Your task to perform on an android device: Go to Reddit.com Image 0: 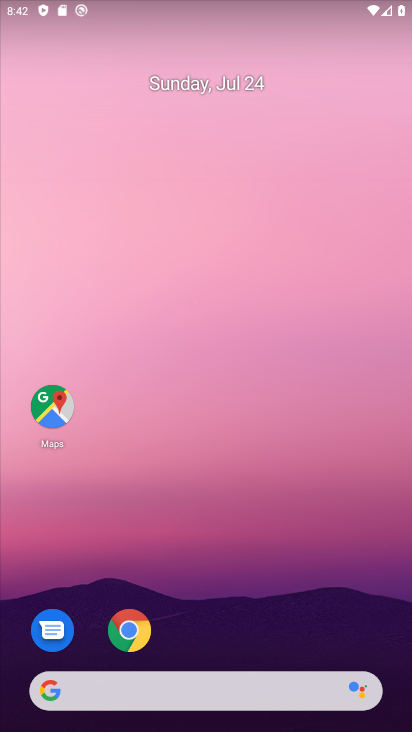
Step 0: click (129, 626)
Your task to perform on an android device: Go to Reddit.com Image 1: 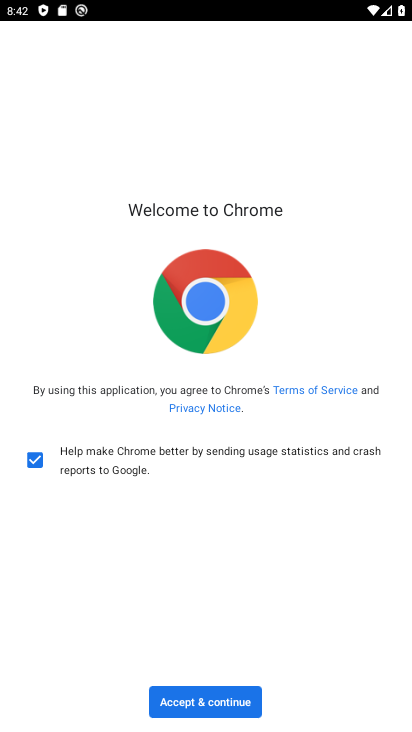
Step 1: click (204, 703)
Your task to perform on an android device: Go to Reddit.com Image 2: 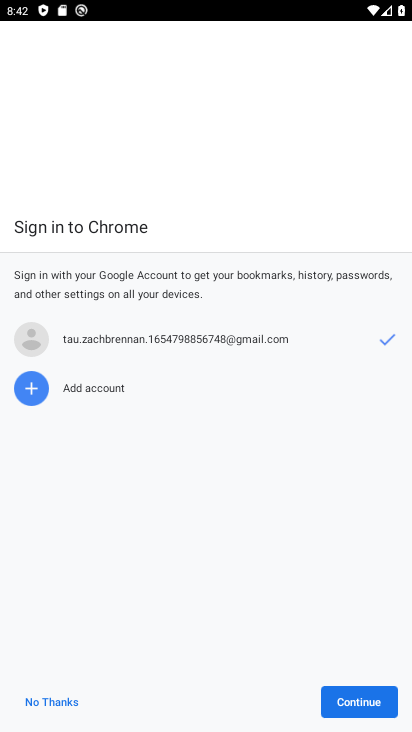
Step 2: click (340, 700)
Your task to perform on an android device: Go to Reddit.com Image 3: 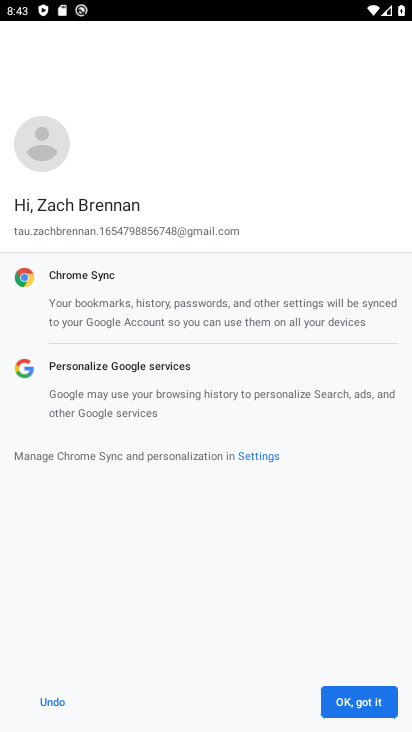
Step 3: click (348, 706)
Your task to perform on an android device: Go to Reddit.com Image 4: 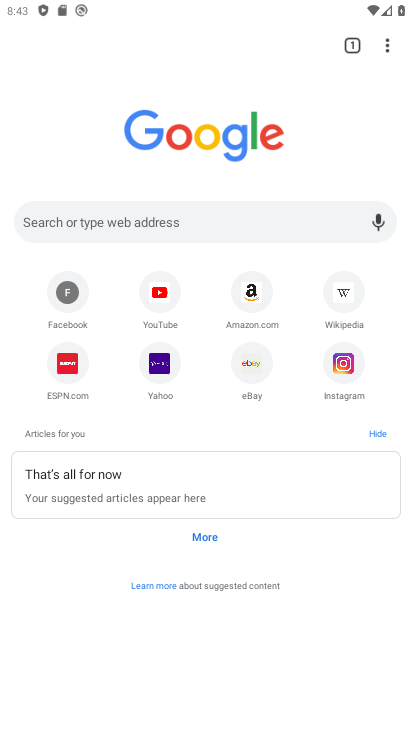
Step 4: click (154, 211)
Your task to perform on an android device: Go to Reddit.com Image 5: 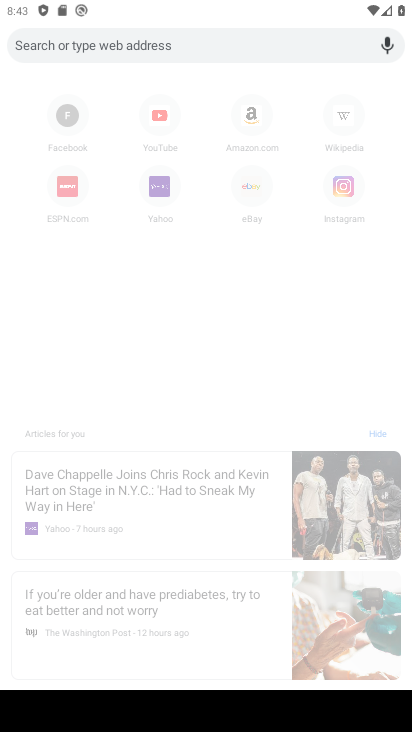
Step 5: type "reddit.com"
Your task to perform on an android device: Go to Reddit.com Image 6: 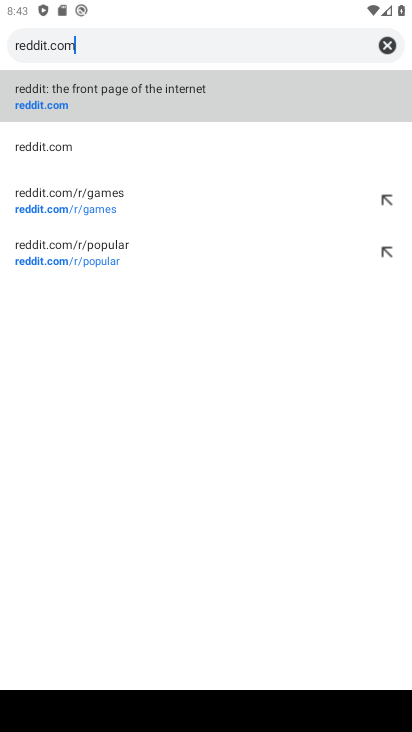
Step 6: click (65, 97)
Your task to perform on an android device: Go to Reddit.com Image 7: 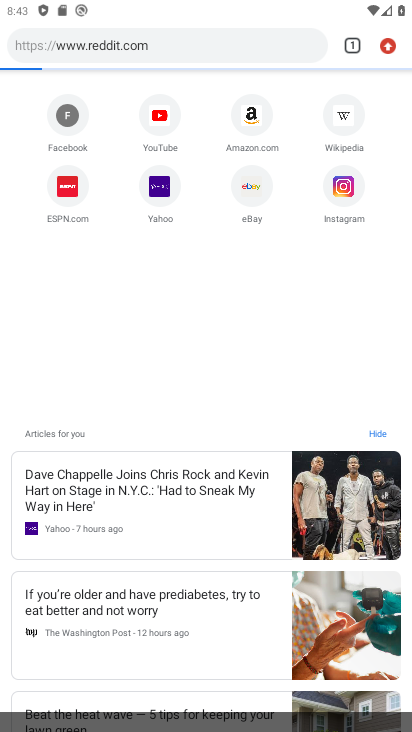
Step 7: click (65, 97)
Your task to perform on an android device: Go to Reddit.com Image 8: 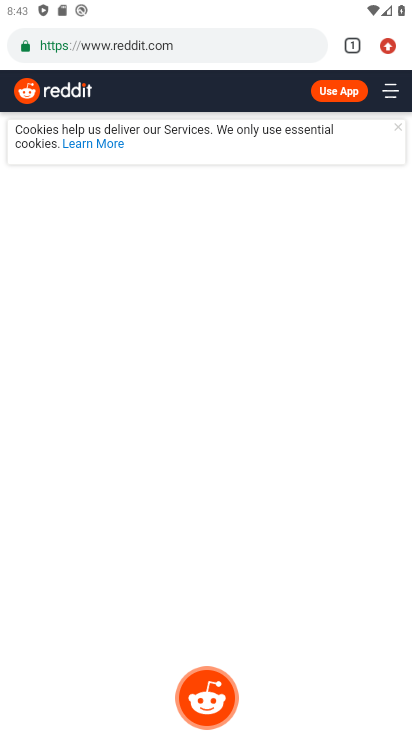
Step 8: task complete